Your task to perform on an android device: Search for vegetarian restaurants on Maps Image 0: 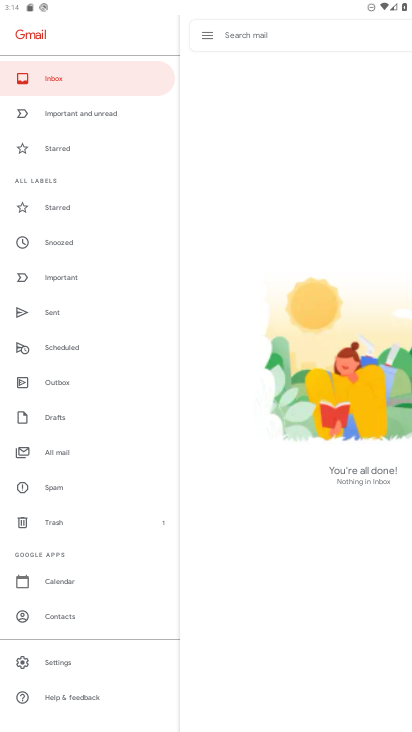
Step 0: press home button
Your task to perform on an android device: Search for vegetarian restaurants on Maps Image 1: 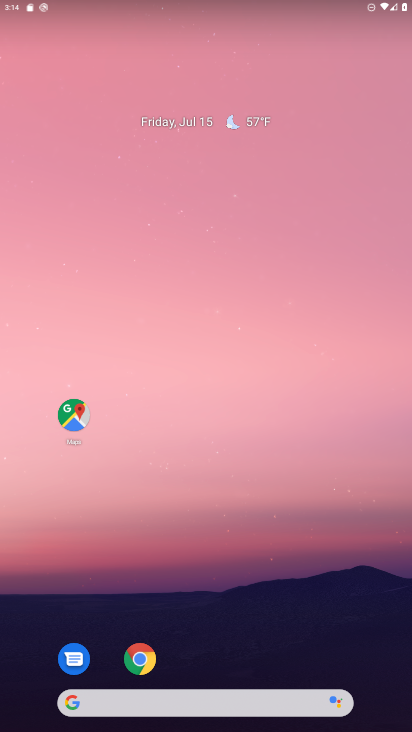
Step 1: drag from (234, 635) to (217, 1)
Your task to perform on an android device: Search for vegetarian restaurants on Maps Image 2: 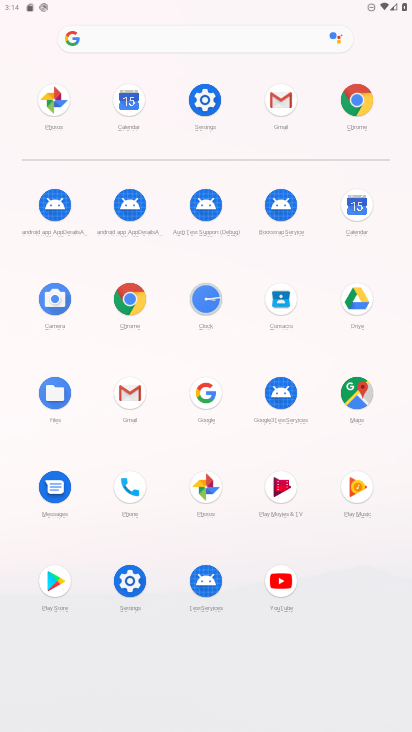
Step 2: click (357, 393)
Your task to perform on an android device: Search for vegetarian restaurants on Maps Image 3: 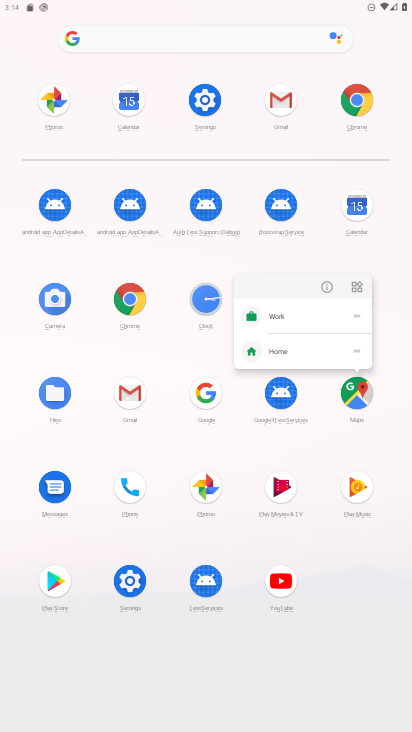
Step 3: click (360, 390)
Your task to perform on an android device: Search for vegetarian restaurants on Maps Image 4: 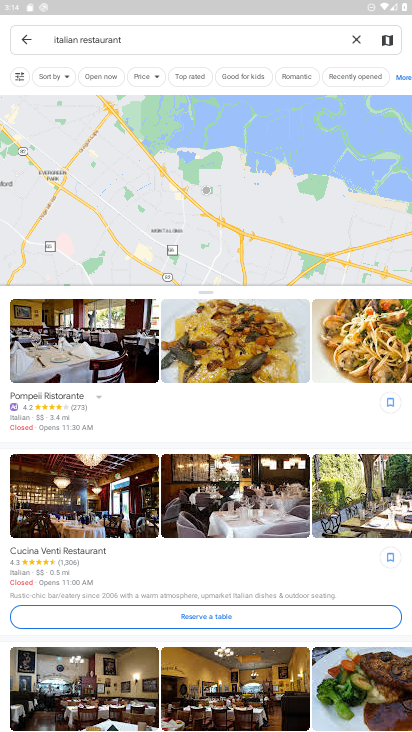
Step 4: click (110, 37)
Your task to perform on an android device: Search for vegetarian restaurants on Maps Image 5: 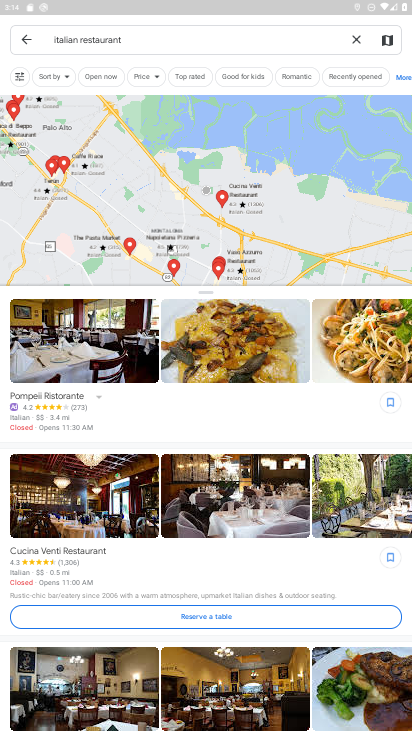
Step 5: click (359, 40)
Your task to perform on an android device: Search for vegetarian restaurants on Maps Image 6: 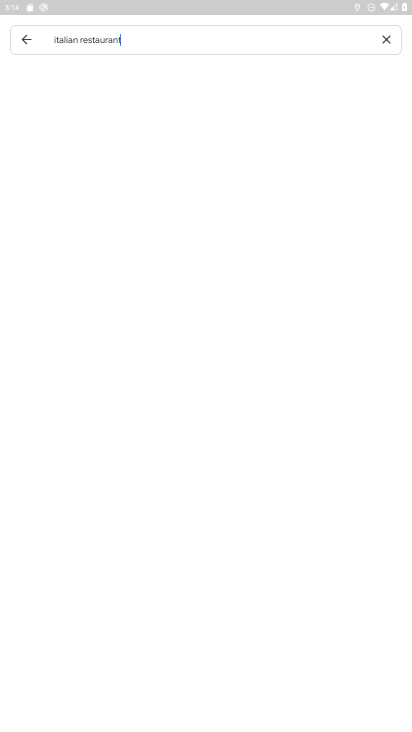
Step 6: click (198, 40)
Your task to perform on an android device: Search for vegetarian restaurants on Maps Image 7: 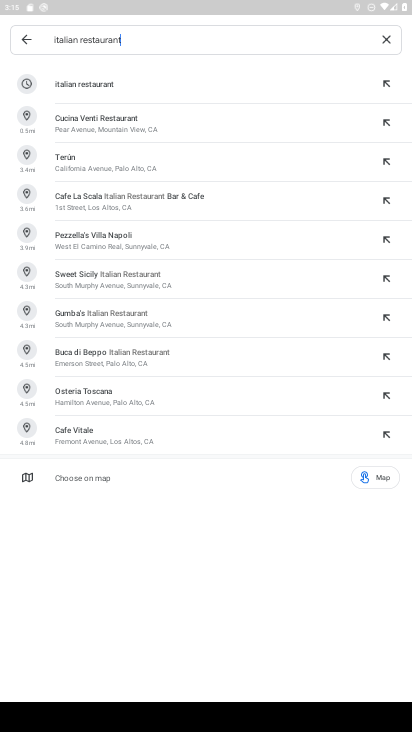
Step 7: click (388, 38)
Your task to perform on an android device: Search for vegetarian restaurants on Maps Image 8: 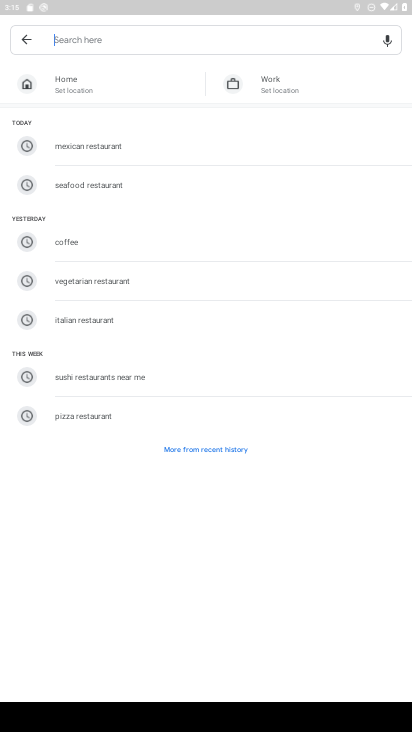
Step 8: click (158, 36)
Your task to perform on an android device: Search for vegetarian restaurants on Maps Image 9: 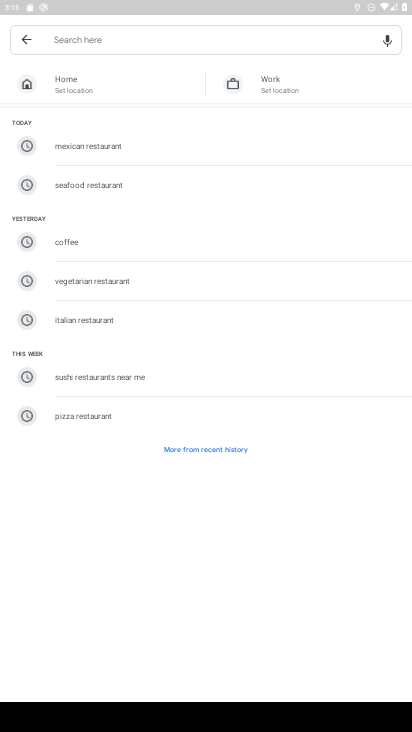
Step 9: type "vegetarian restaurants"
Your task to perform on an android device: Search for vegetarian restaurants on Maps Image 10: 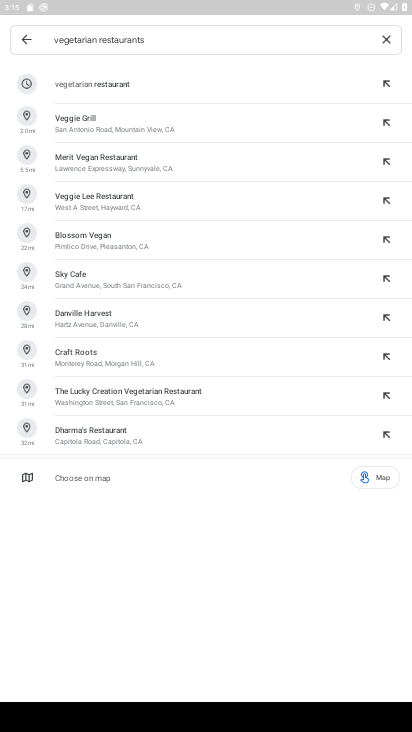
Step 10: click (105, 83)
Your task to perform on an android device: Search for vegetarian restaurants on Maps Image 11: 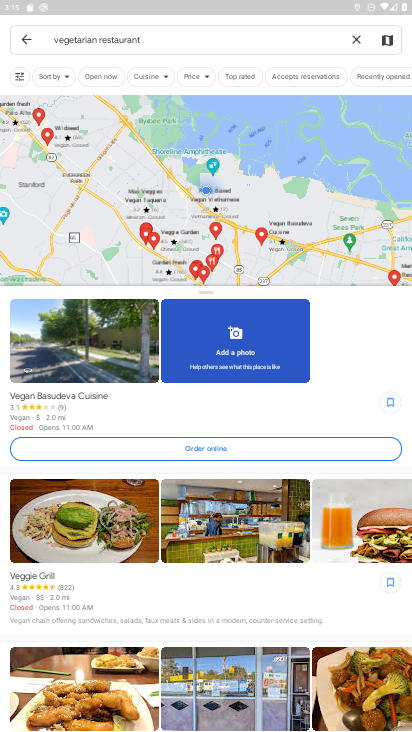
Step 11: task complete